Your task to perform on an android device: turn on the 12-hour format for clock Image 0: 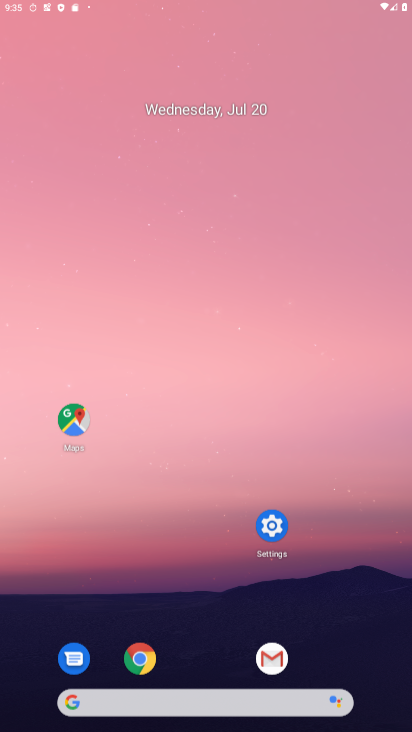
Step 0: press home button
Your task to perform on an android device: turn on the 12-hour format for clock Image 1: 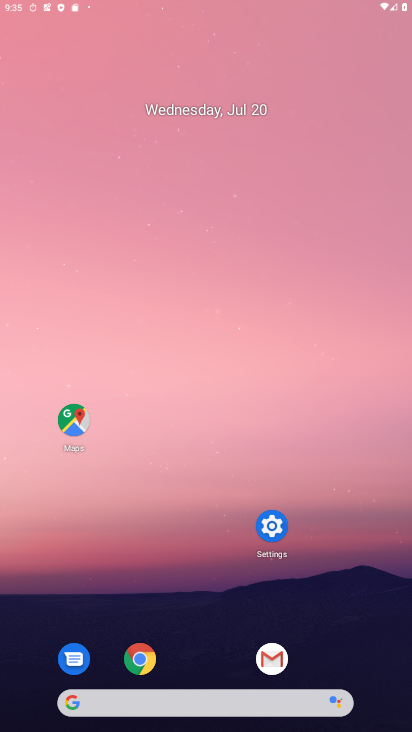
Step 1: click (150, 655)
Your task to perform on an android device: turn on the 12-hour format for clock Image 2: 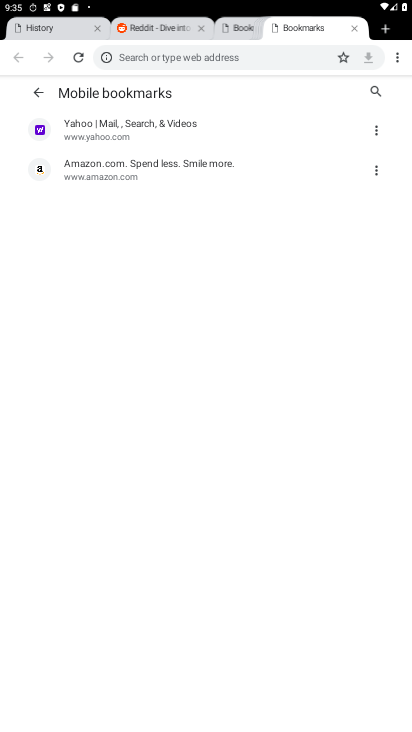
Step 2: task complete